Your task to perform on an android device: check storage Image 0: 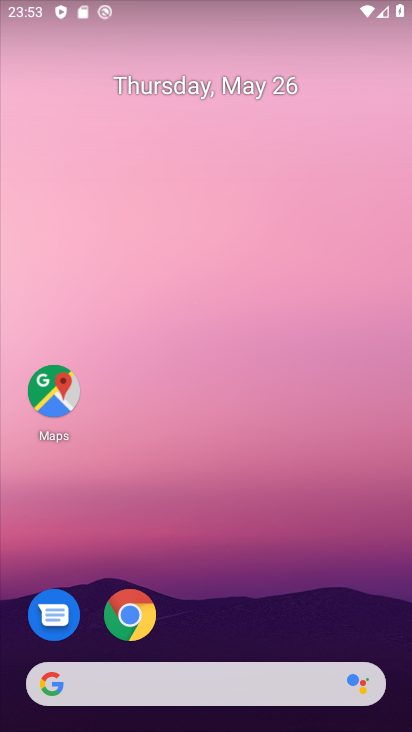
Step 0: drag from (326, 617) to (343, 165)
Your task to perform on an android device: check storage Image 1: 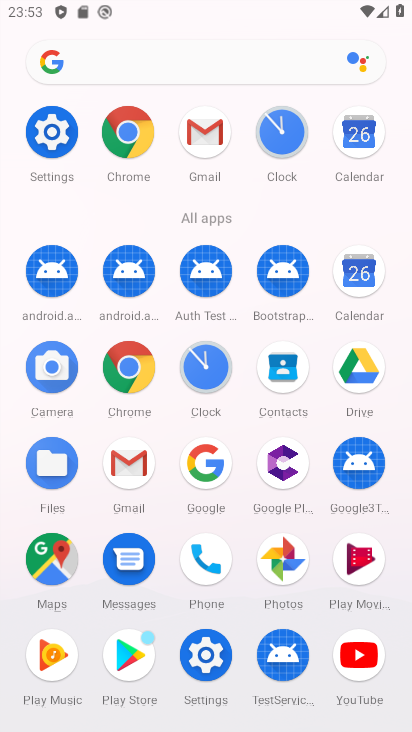
Step 1: click (52, 148)
Your task to perform on an android device: check storage Image 2: 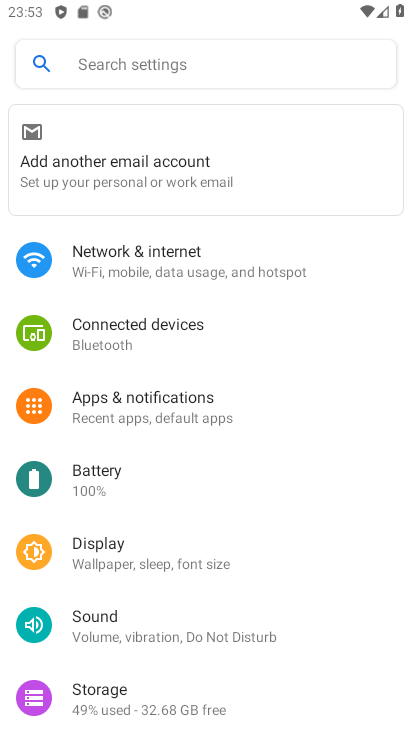
Step 2: drag from (333, 545) to (335, 454)
Your task to perform on an android device: check storage Image 3: 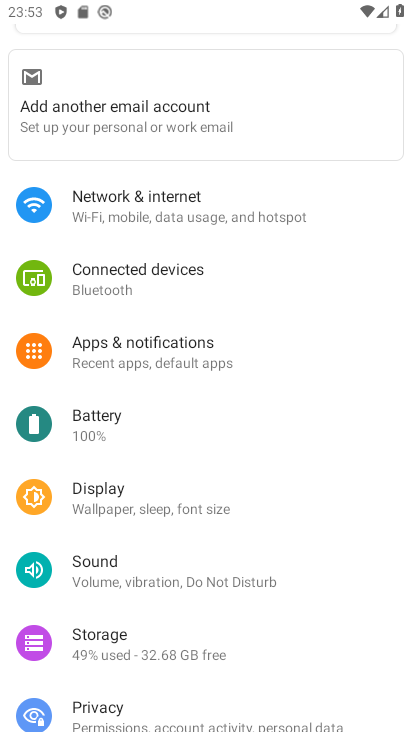
Step 3: drag from (343, 586) to (338, 469)
Your task to perform on an android device: check storage Image 4: 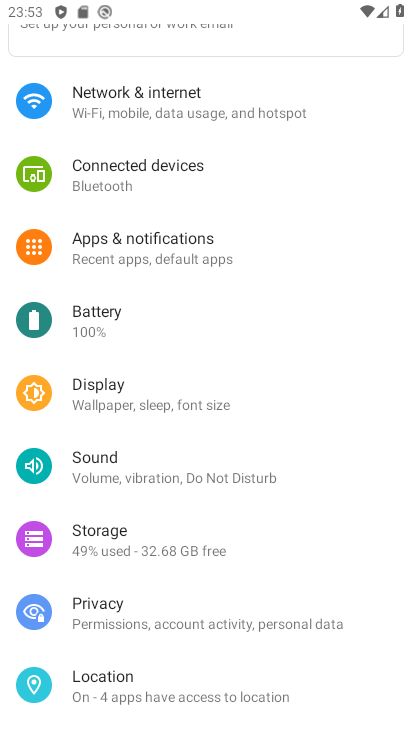
Step 4: drag from (352, 580) to (356, 488)
Your task to perform on an android device: check storage Image 5: 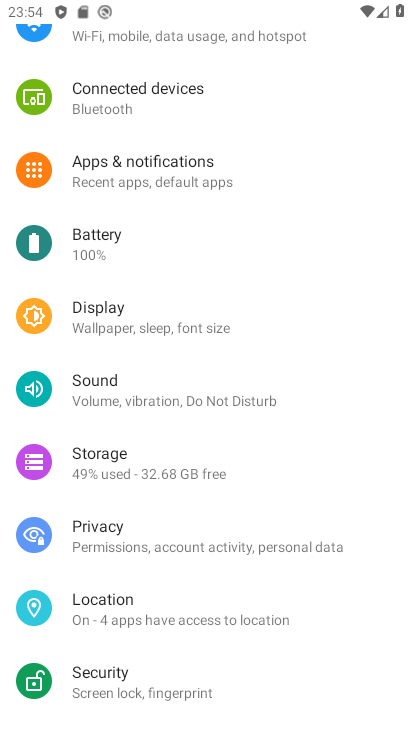
Step 5: drag from (353, 622) to (349, 503)
Your task to perform on an android device: check storage Image 6: 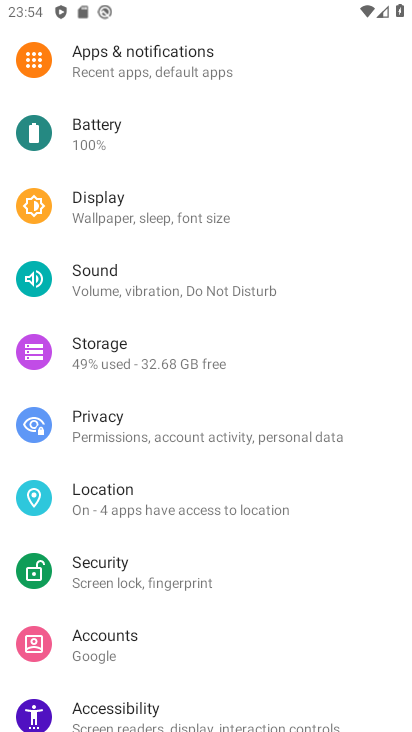
Step 6: drag from (344, 610) to (341, 483)
Your task to perform on an android device: check storage Image 7: 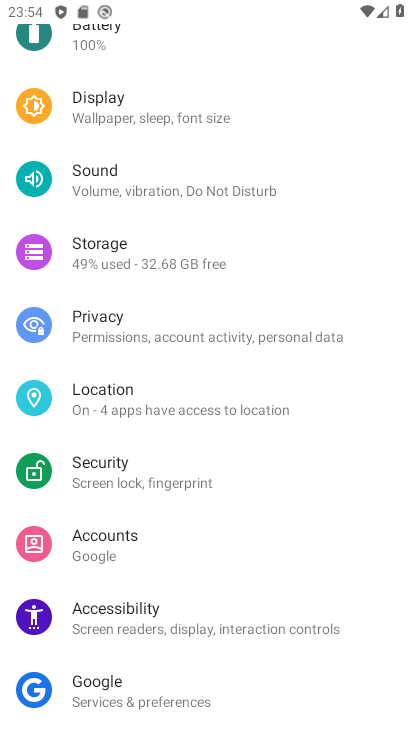
Step 7: click (238, 269)
Your task to perform on an android device: check storage Image 8: 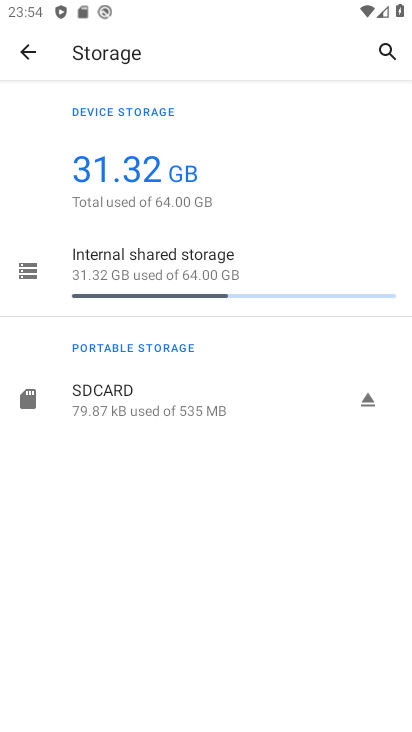
Step 8: task complete